Your task to perform on an android device: open app "Roku - Official Remote Control" (install if not already installed) and enter user name: "autumnal@gmail.com" and password: "stuffing" Image 0: 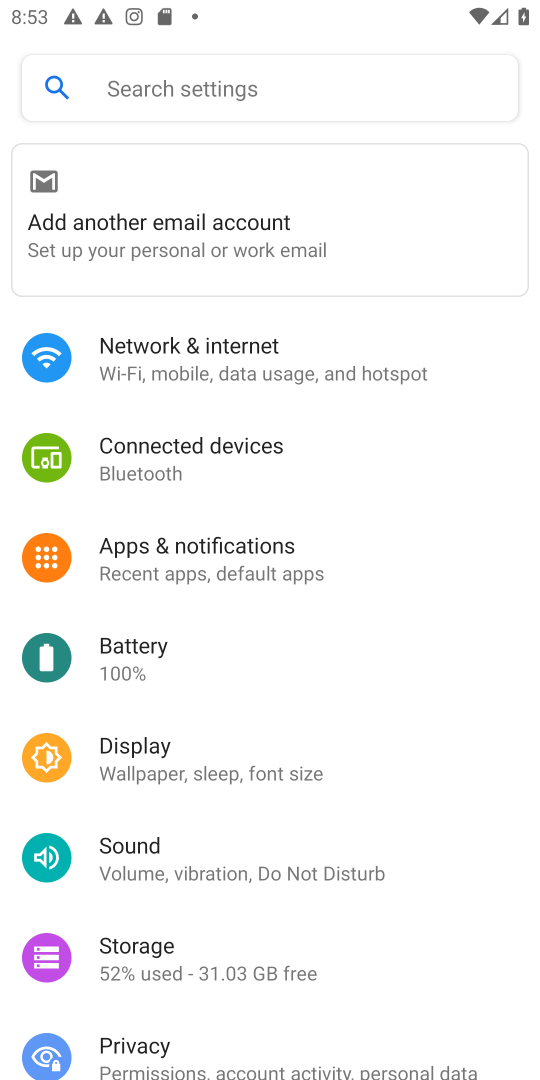
Step 0: press home button
Your task to perform on an android device: open app "Roku - Official Remote Control" (install if not already installed) and enter user name: "autumnal@gmail.com" and password: "stuffing" Image 1: 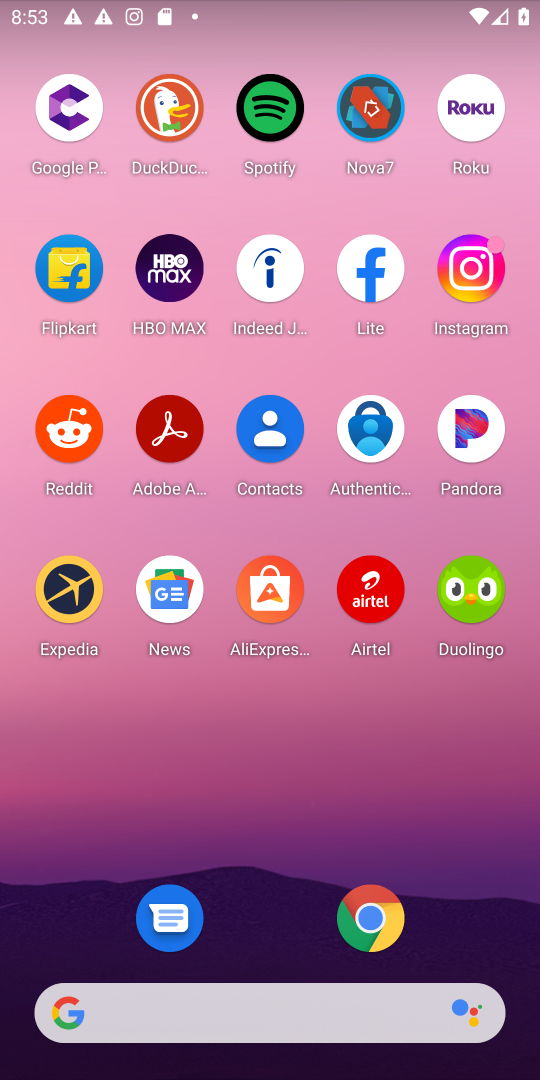
Step 1: press home button
Your task to perform on an android device: open app "Roku - Official Remote Control" (install if not already installed) and enter user name: "autumnal@gmail.com" and password: "stuffing" Image 2: 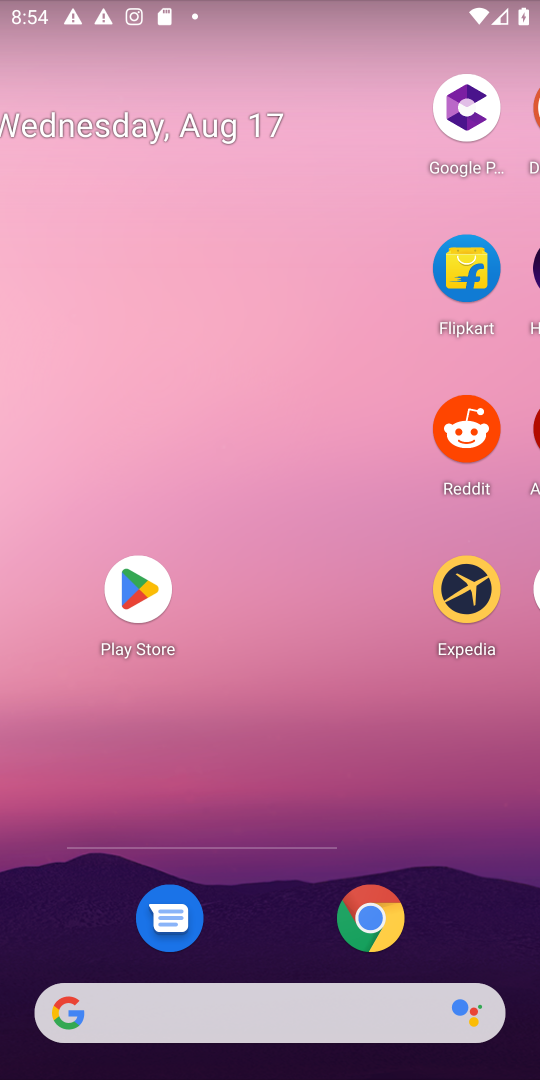
Step 2: press back button
Your task to perform on an android device: open app "Roku - Official Remote Control" (install if not already installed) and enter user name: "autumnal@gmail.com" and password: "stuffing" Image 3: 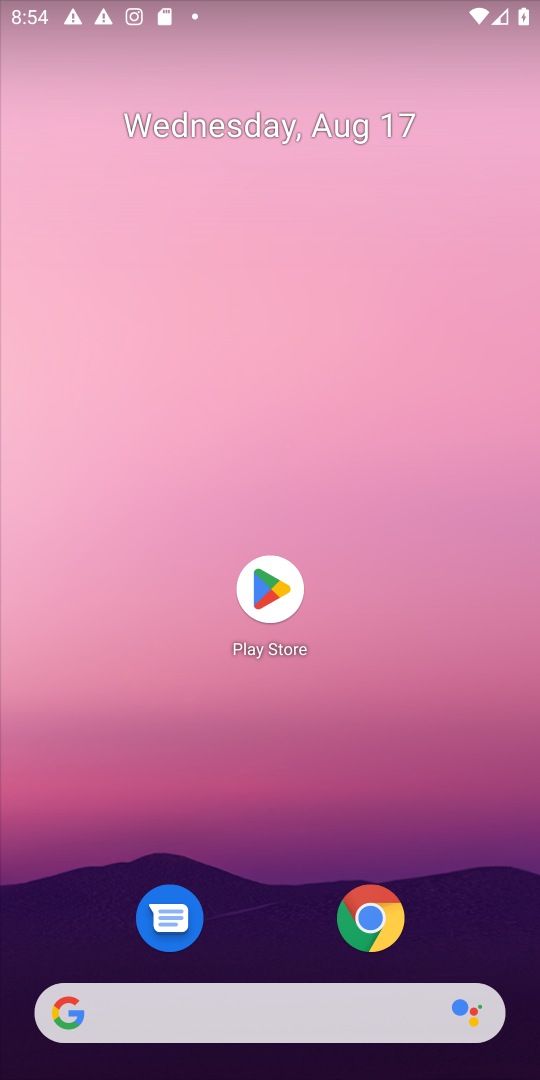
Step 3: click (268, 583)
Your task to perform on an android device: open app "Roku - Official Remote Control" (install if not already installed) and enter user name: "autumnal@gmail.com" and password: "stuffing" Image 4: 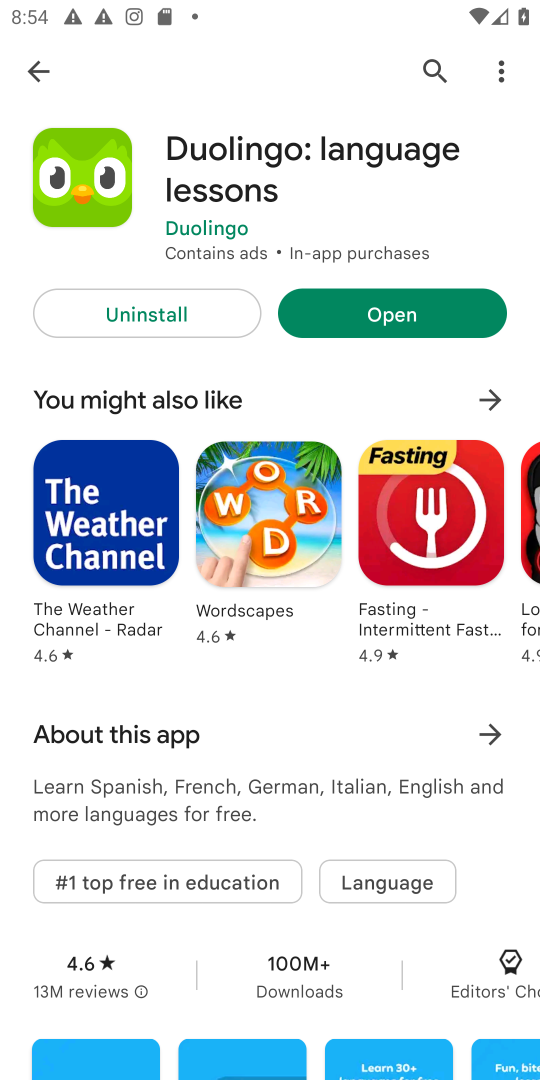
Step 4: click (429, 59)
Your task to perform on an android device: open app "Roku - Official Remote Control" (install if not already installed) and enter user name: "autumnal@gmail.com" and password: "stuffing" Image 5: 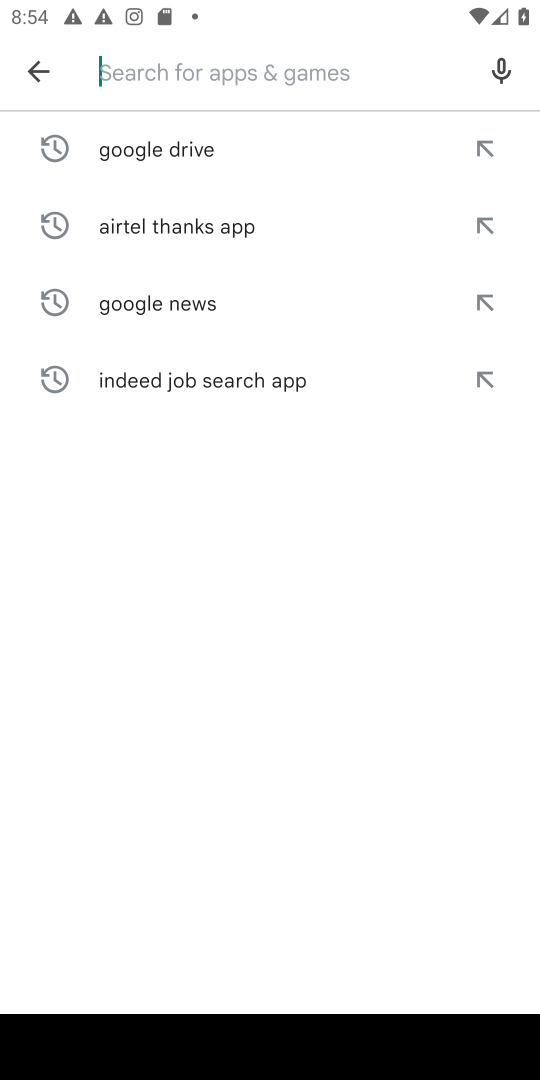
Step 5: type "Roku - Official Remote Control"
Your task to perform on an android device: open app "Roku - Official Remote Control" (install if not already installed) and enter user name: "autumnal@gmail.com" and password: "stuffing" Image 6: 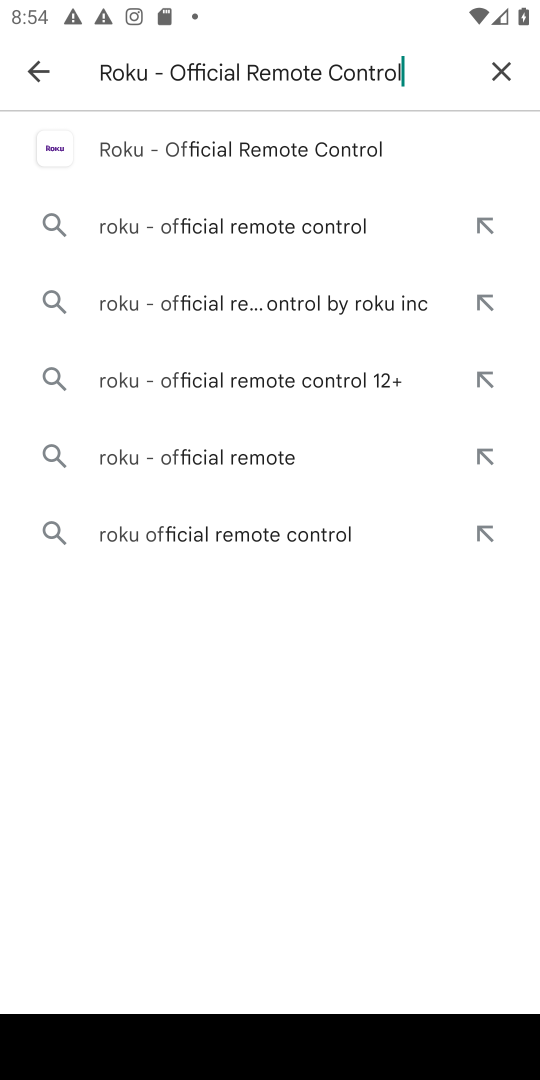
Step 6: press enter
Your task to perform on an android device: open app "Roku - Official Remote Control" (install if not already installed) and enter user name: "autumnal@gmail.com" and password: "stuffing" Image 7: 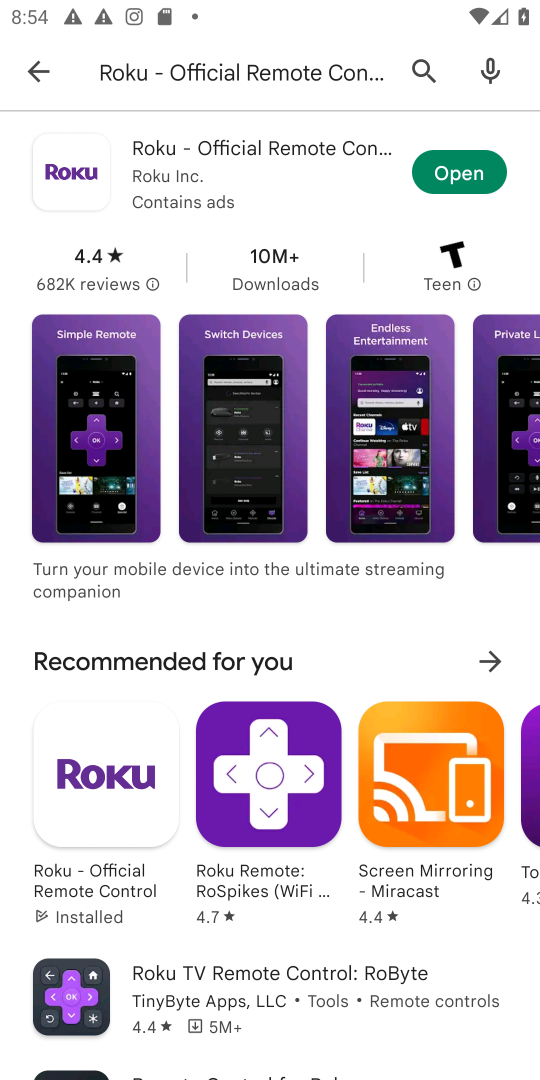
Step 7: click (452, 176)
Your task to perform on an android device: open app "Roku - Official Remote Control" (install if not already installed) and enter user name: "autumnal@gmail.com" and password: "stuffing" Image 8: 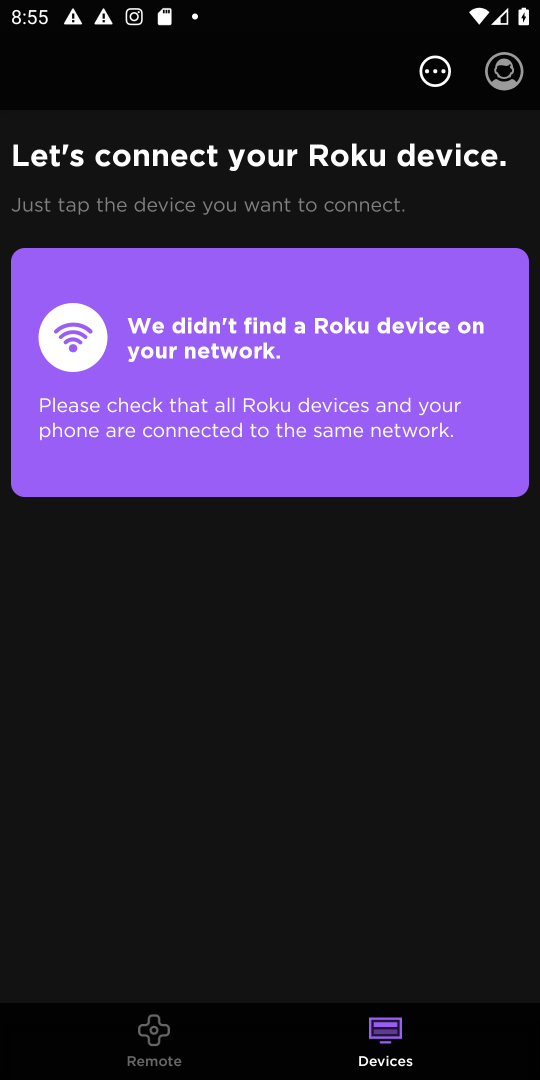
Step 8: task complete